Your task to perform on an android device: Open Youtube and go to the subscriptions tab Image 0: 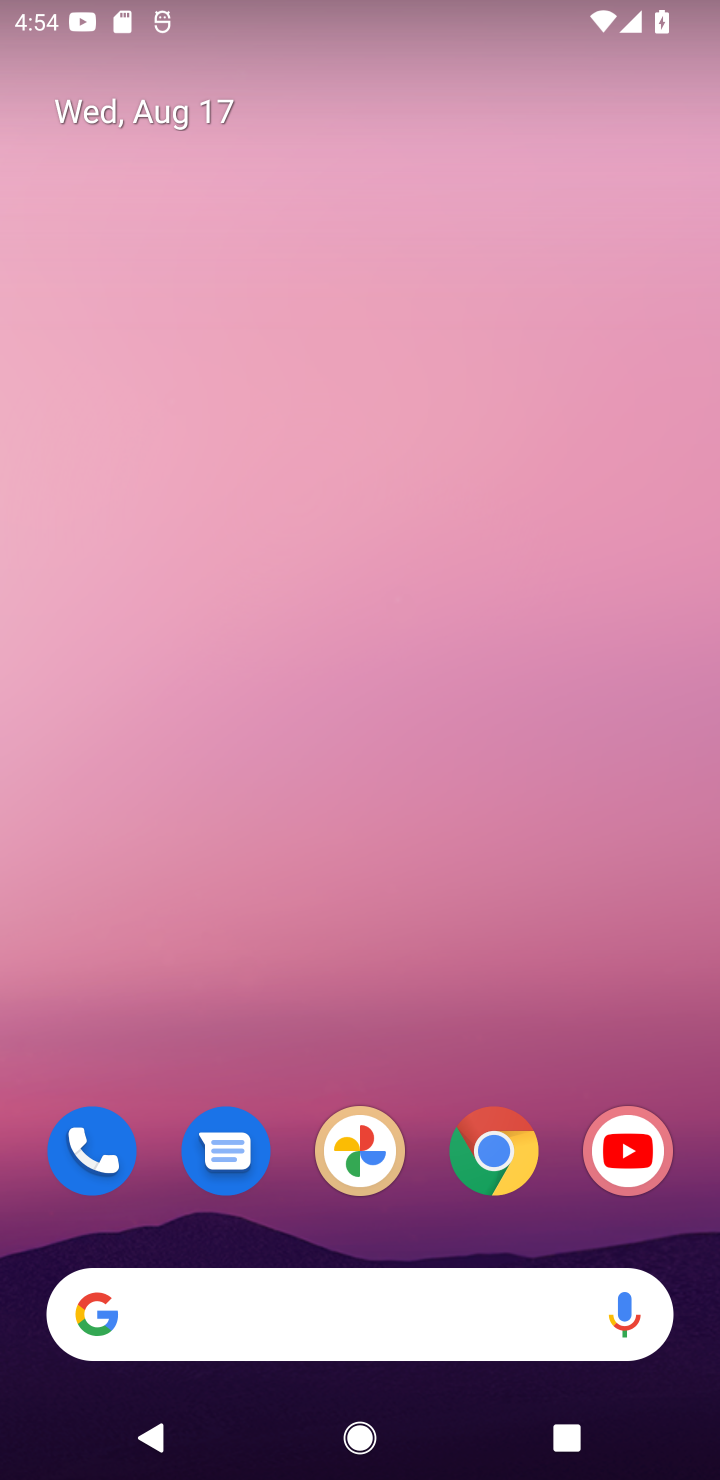
Step 0: click (635, 1177)
Your task to perform on an android device: Open Youtube and go to the subscriptions tab Image 1: 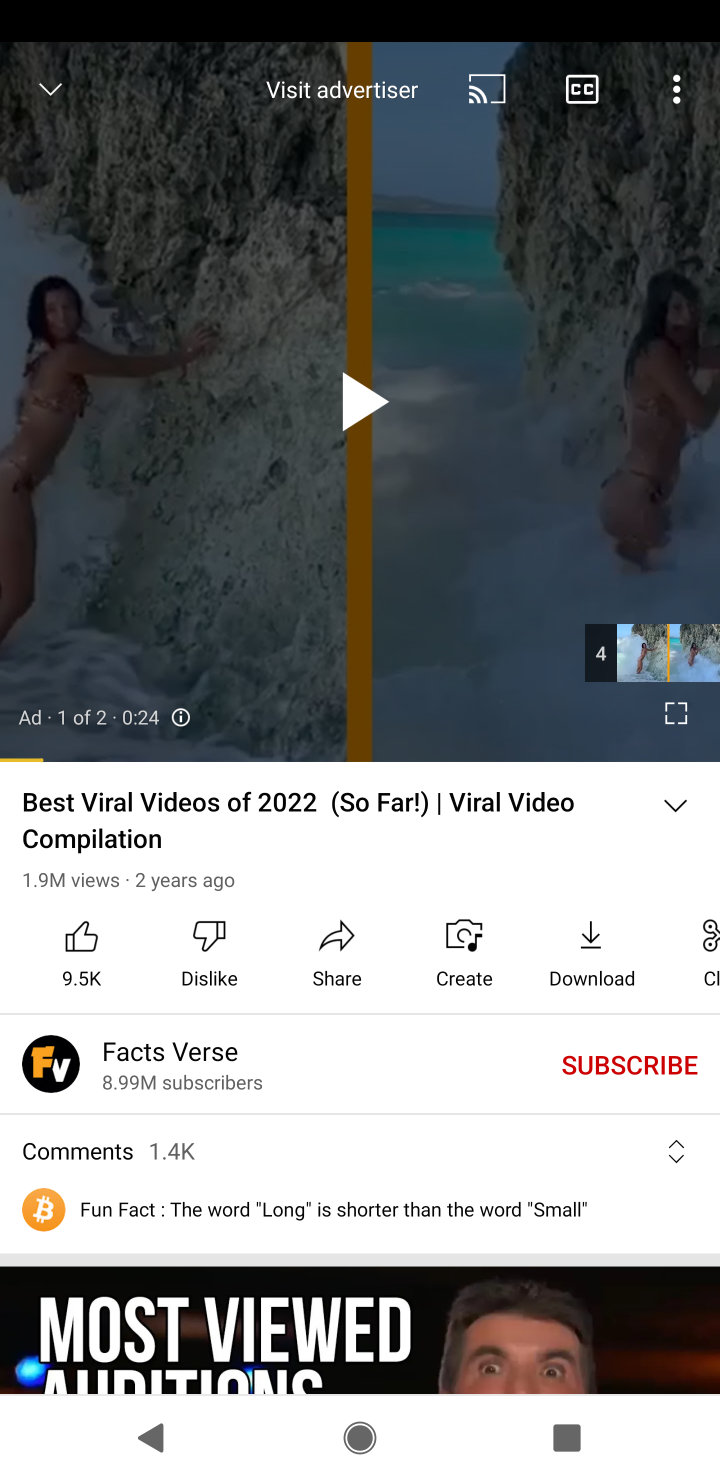
Step 1: press back button
Your task to perform on an android device: Open Youtube and go to the subscriptions tab Image 2: 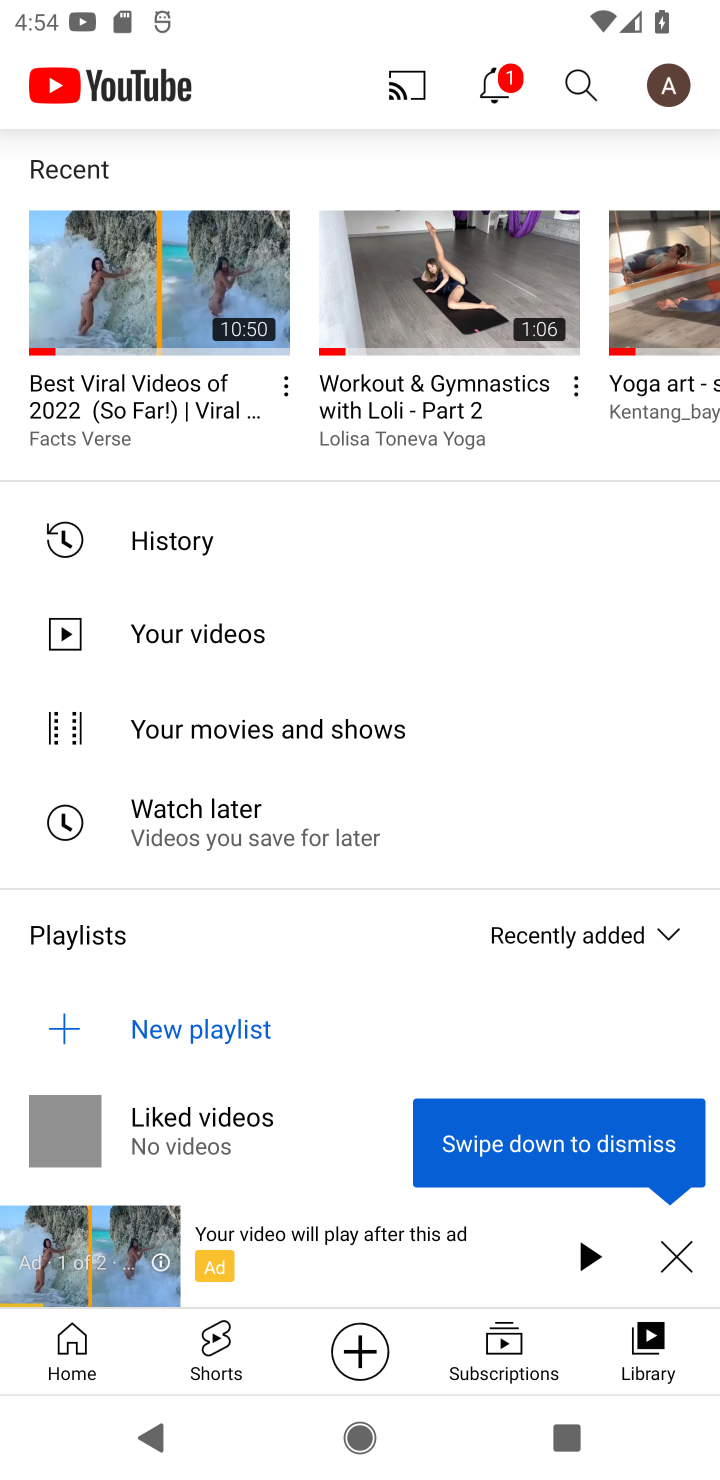
Step 2: click (510, 1352)
Your task to perform on an android device: Open Youtube and go to the subscriptions tab Image 3: 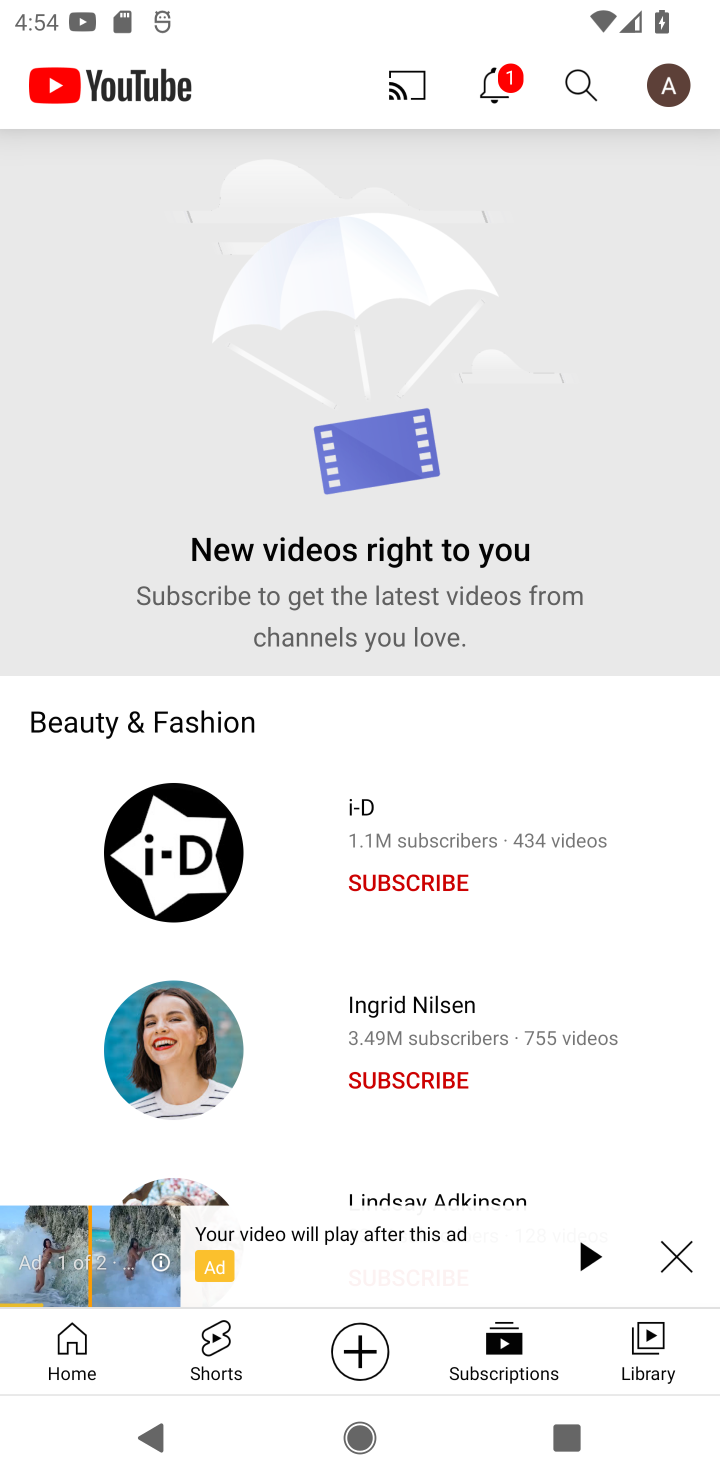
Step 3: task complete